Your task to perform on an android device: Open network settings Image 0: 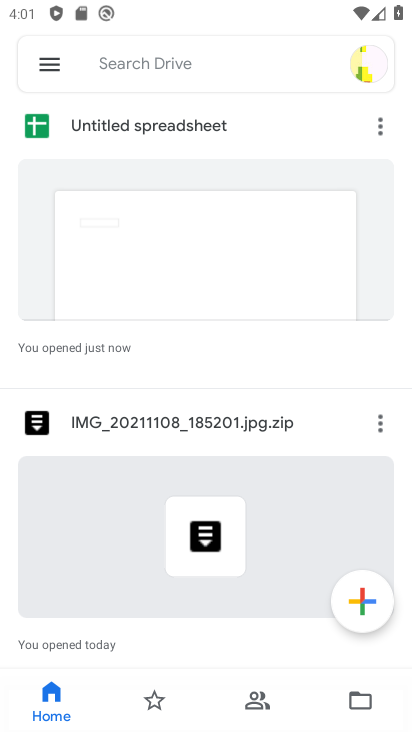
Step 0: press home button
Your task to perform on an android device: Open network settings Image 1: 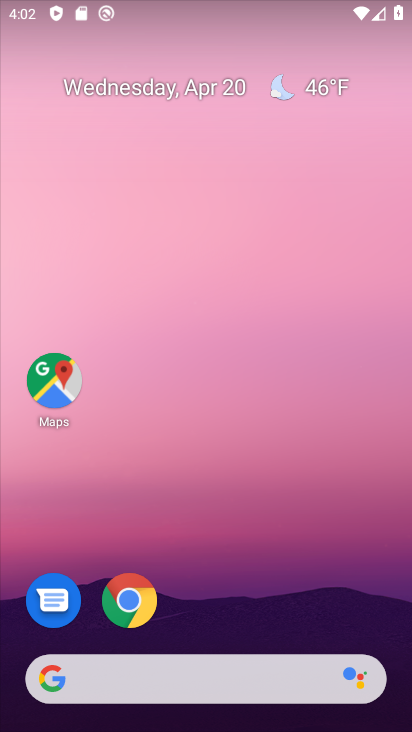
Step 1: drag from (227, 625) to (258, 190)
Your task to perform on an android device: Open network settings Image 2: 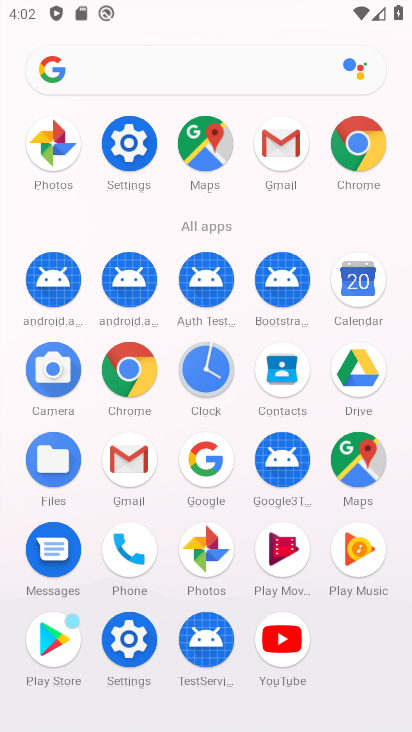
Step 2: click (119, 133)
Your task to perform on an android device: Open network settings Image 3: 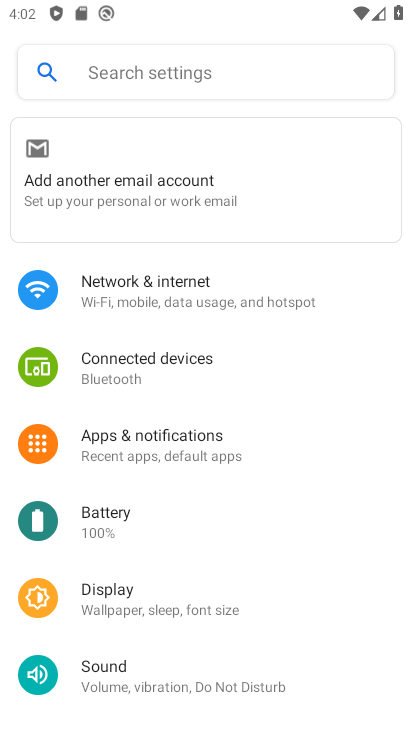
Step 3: click (165, 284)
Your task to perform on an android device: Open network settings Image 4: 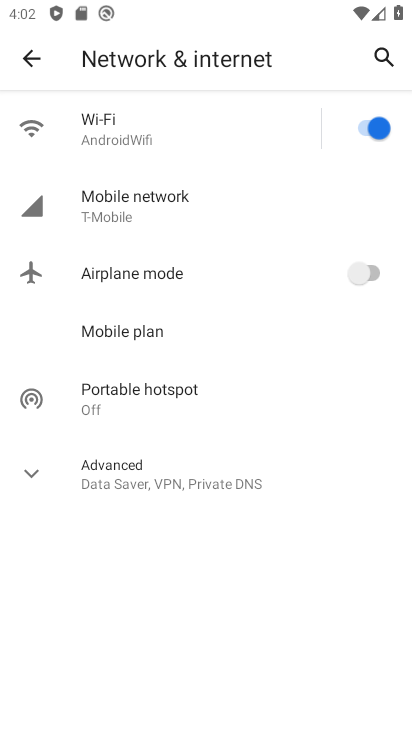
Step 4: click (106, 469)
Your task to perform on an android device: Open network settings Image 5: 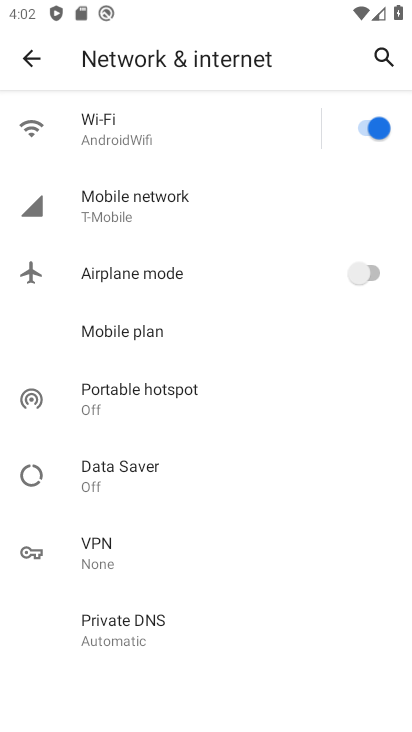
Step 5: task complete